Your task to perform on an android device: Check out the new nike air max 2020. Image 0: 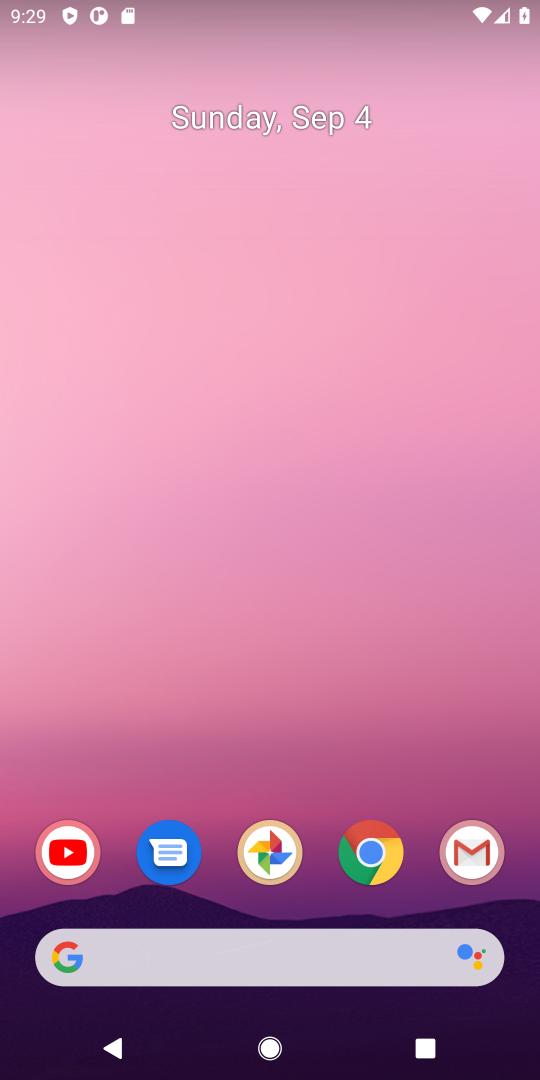
Step 0: drag from (431, 757) to (190, 1)
Your task to perform on an android device: Check out the new nike air max 2020. Image 1: 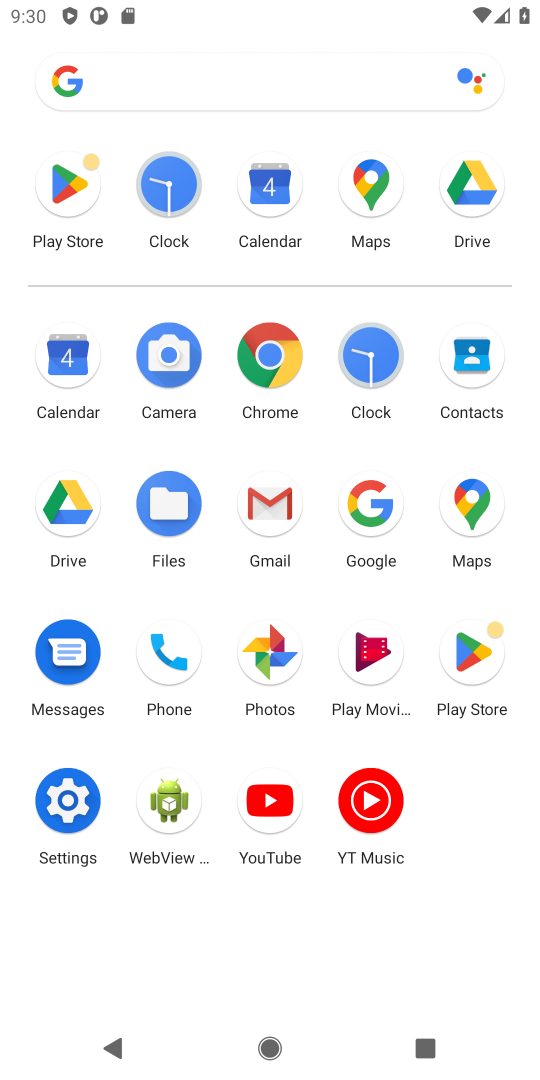
Step 1: click (372, 515)
Your task to perform on an android device: Check out the new nike air max 2020. Image 2: 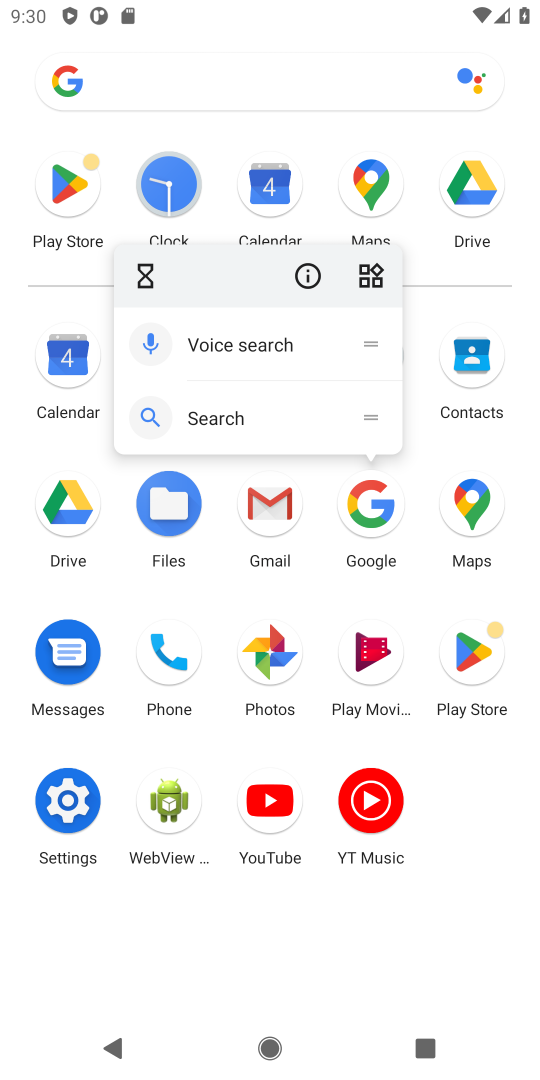
Step 2: click (371, 514)
Your task to perform on an android device: Check out the new nike air max 2020. Image 3: 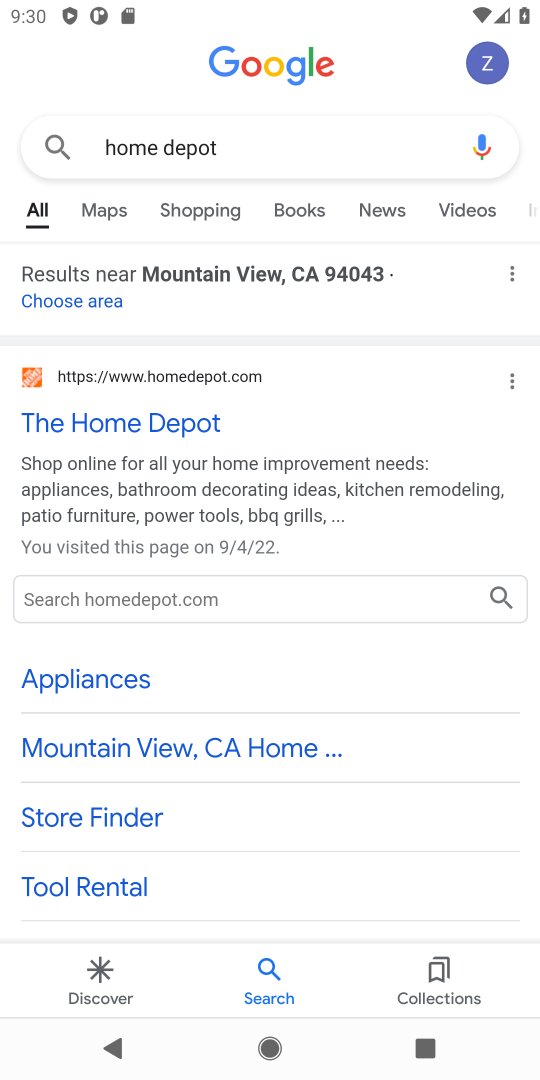
Step 3: press back button
Your task to perform on an android device: Check out the new nike air max 2020. Image 4: 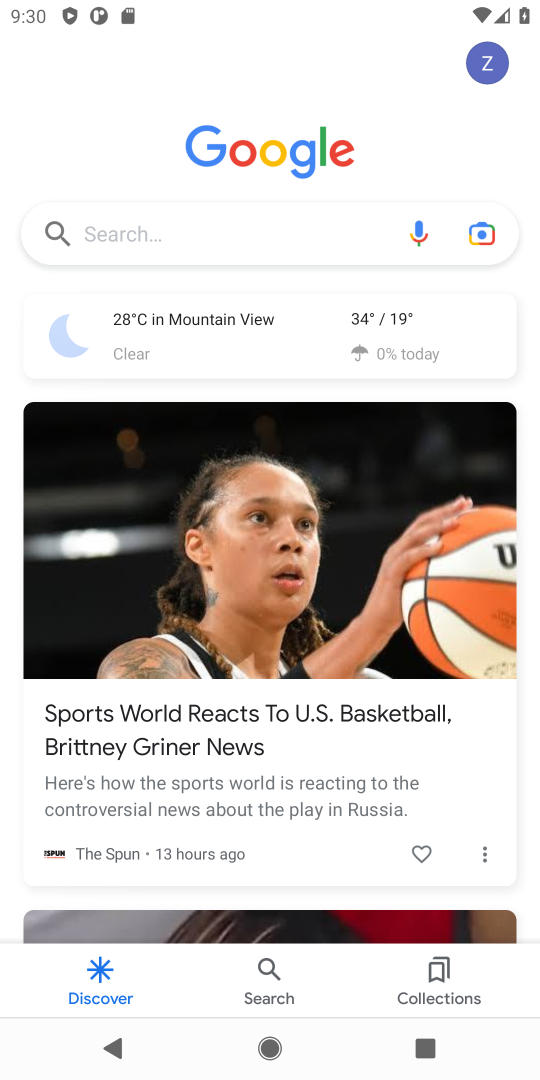
Step 4: click (211, 215)
Your task to perform on an android device: Check out the new nike air max 2020. Image 5: 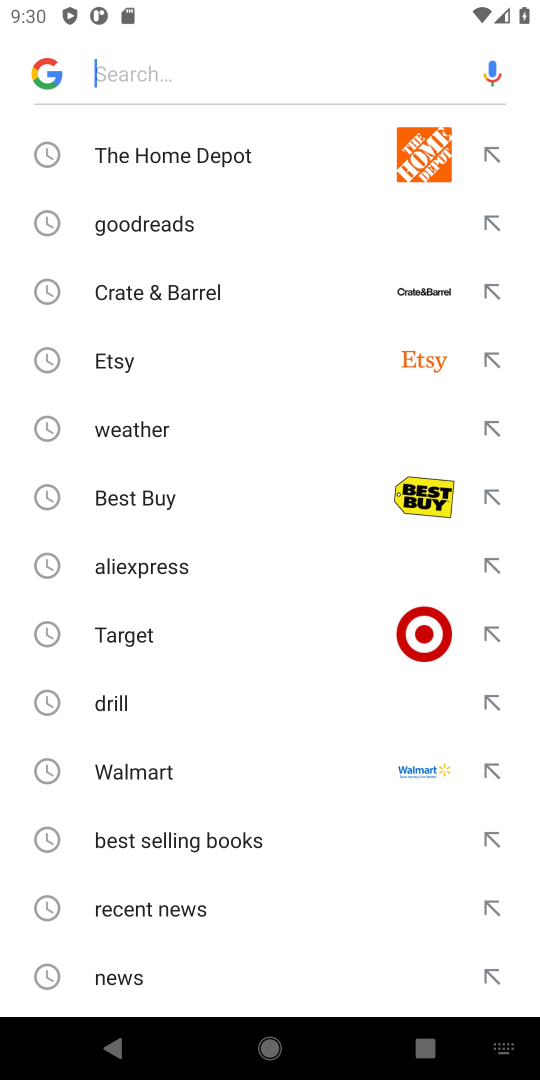
Step 5: drag from (220, 596) to (151, 175)
Your task to perform on an android device: Check out the new nike air max 2020. Image 6: 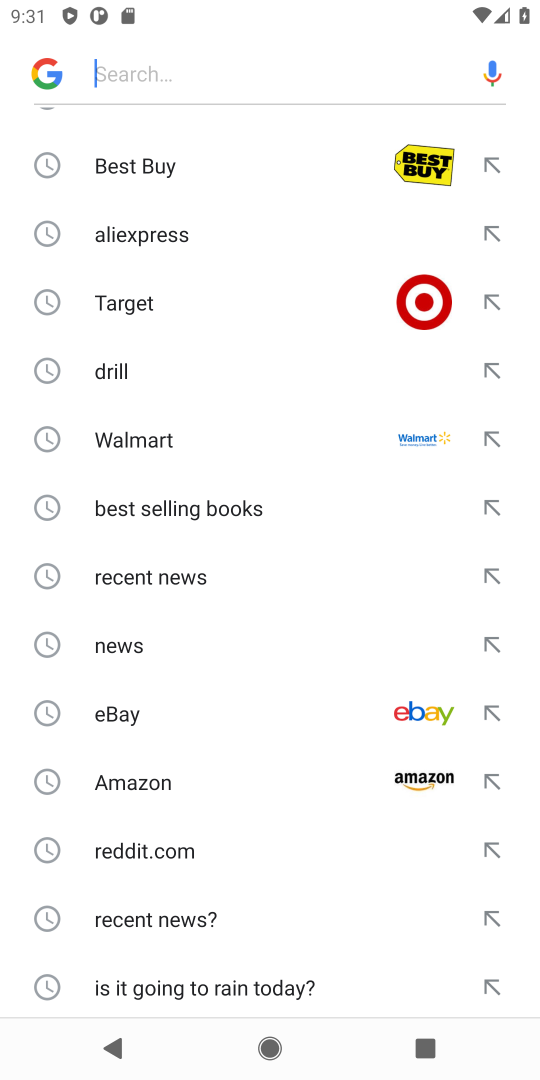
Step 6: type "new nike air max 2020"
Your task to perform on an android device: Check out the new nike air max 2020. Image 7: 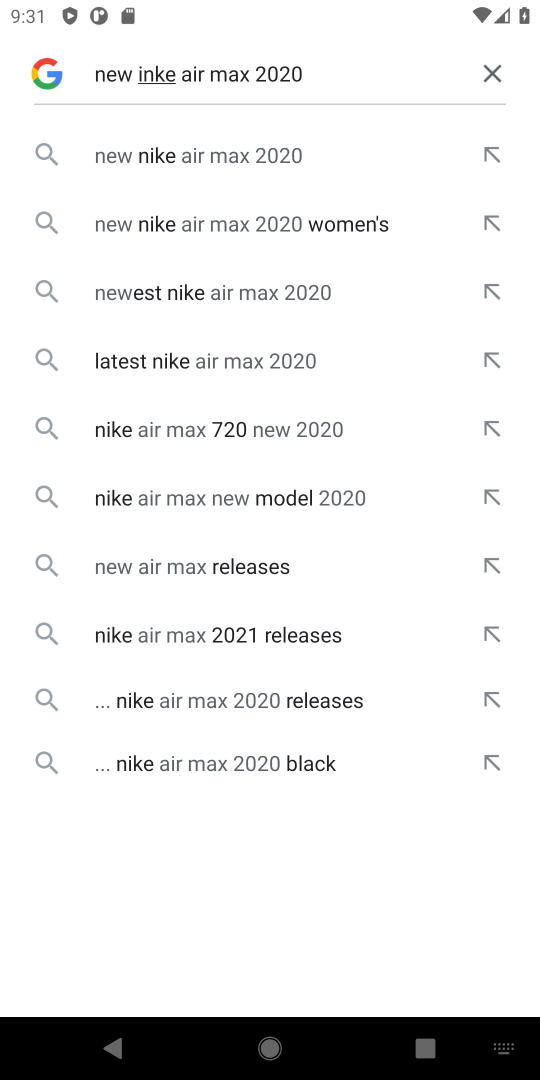
Step 7: click (211, 151)
Your task to perform on an android device: Check out the new nike air max 2020. Image 8: 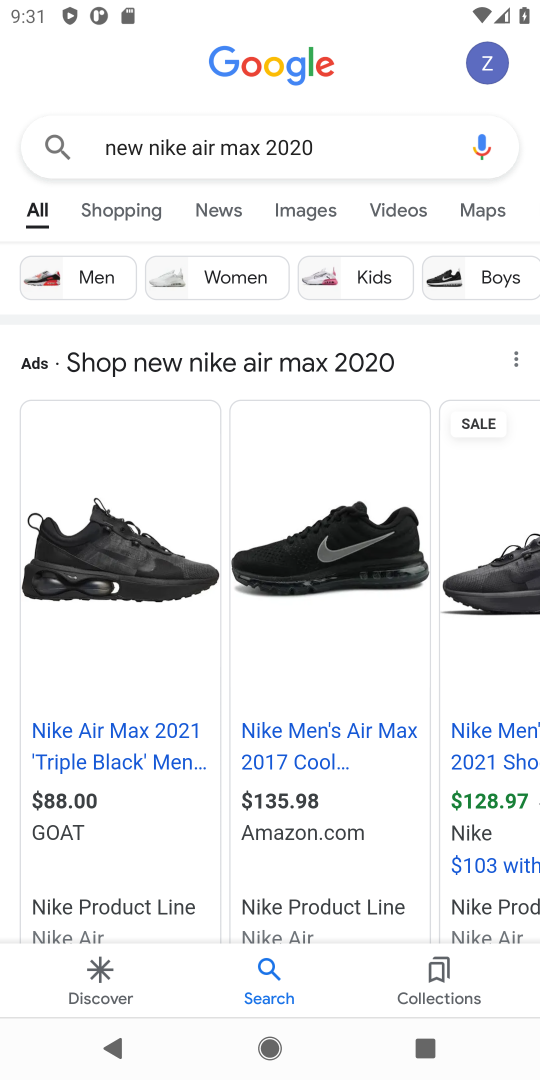
Step 8: task complete